Your task to perform on an android device: delete location history Image 0: 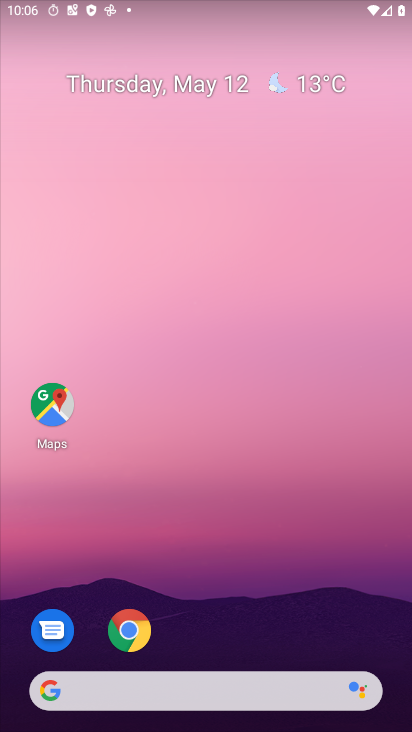
Step 0: drag from (201, 697) to (160, 88)
Your task to perform on an android device: delete location history Image 1: 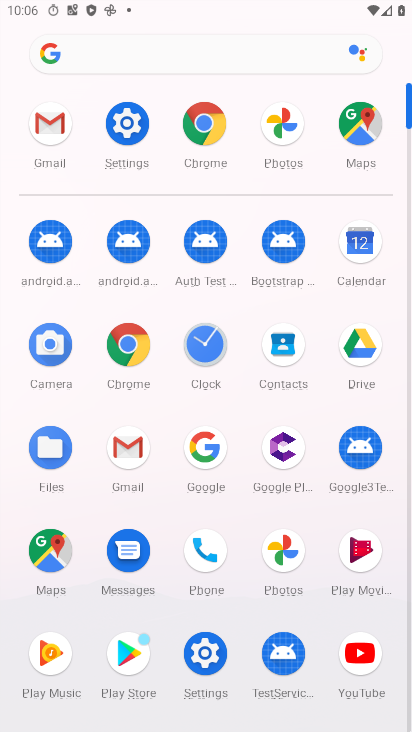
Step 1: click (345, 133)
Your task to perform on an android device: delete location history Image 2: 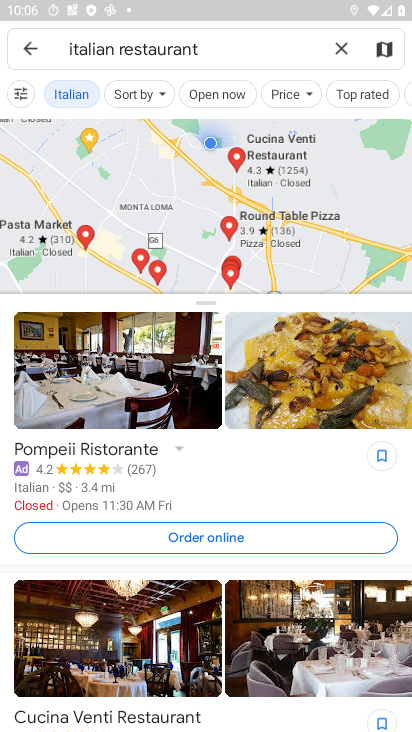
Step 2: click (26, 58)
Your task to perform on an android device: delete location history Image 3: 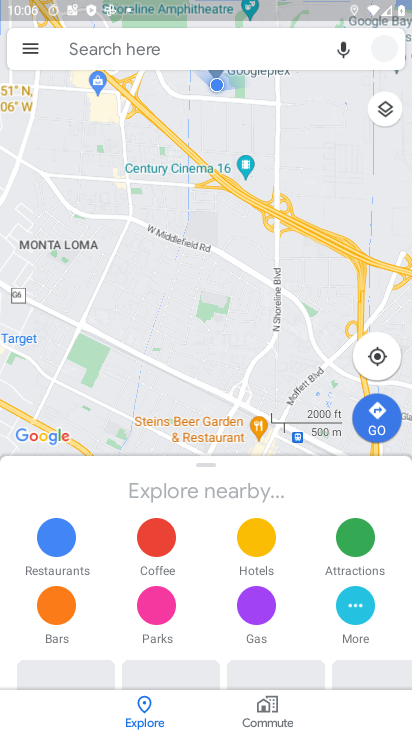
Step 3: click (30, 60)
Your task to perform on an android device: delete location history Image 4: 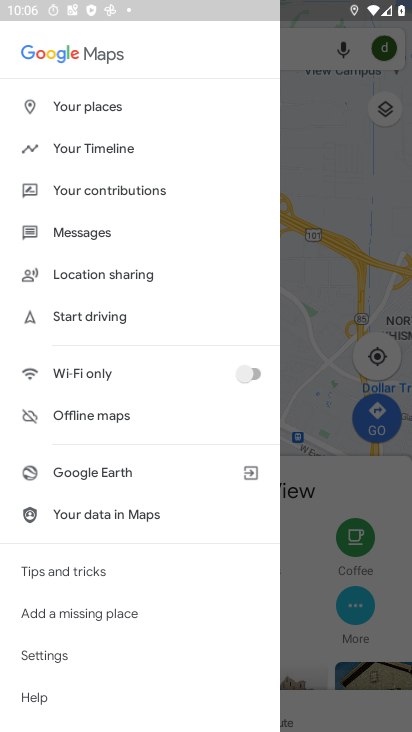
Step 4: click (63, 152)
Your task to perform on an android device: delete location history Image 5: 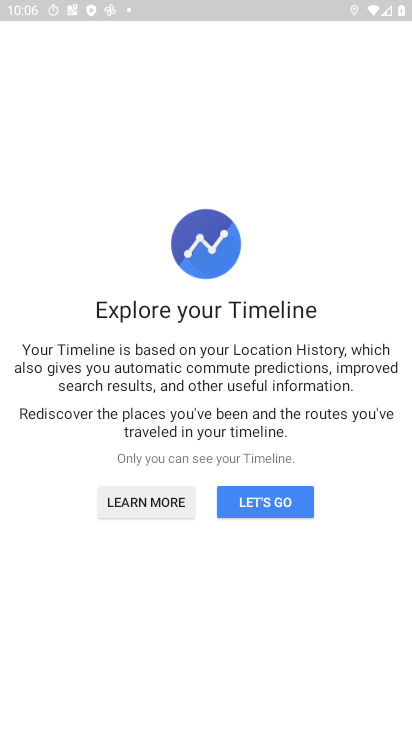
Step 5: click (251, 497)
Your task to perform on an android device: delete location history Image 6: 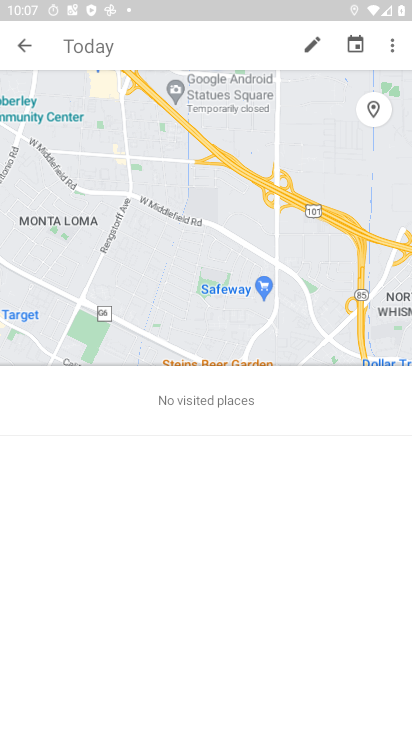
Step 6: click (387, 41)
Your task to perform on an android device: delete location history Image 7: 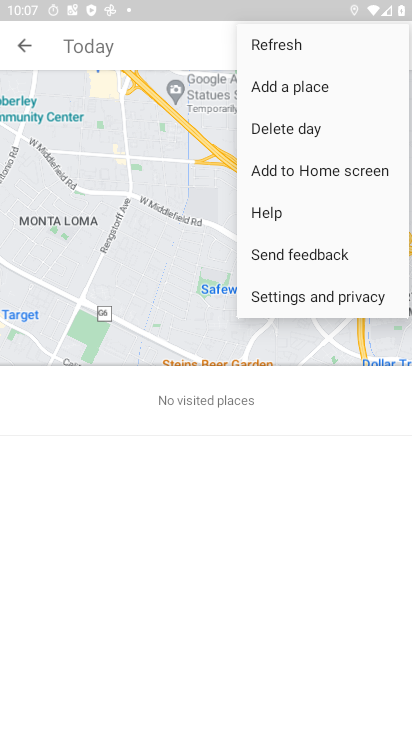
Step 7: click (308, 286)
Your task to perform on an android device: delete location history Image 8: 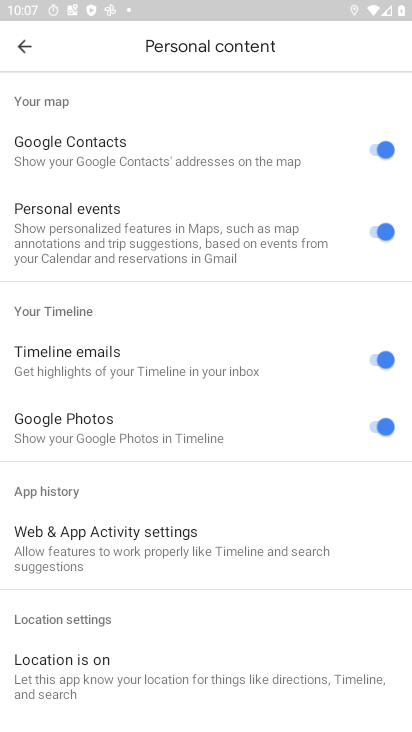
Step 8: drag from (191, 635) to (160, 187)
Your task to perform on an android device: delete location history Image 9: 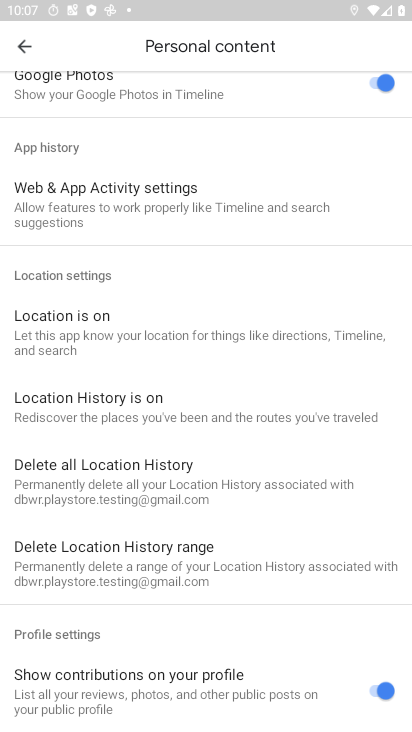
Step 9: click (208, 480)
Your task to perform on an android device: delete location history Image 10: 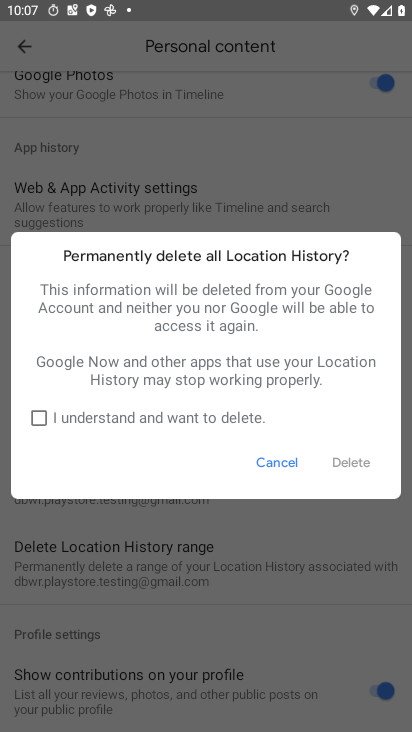
Step 10: click (190, 433)
Your task to perform on an android device: delete location history Image 11: 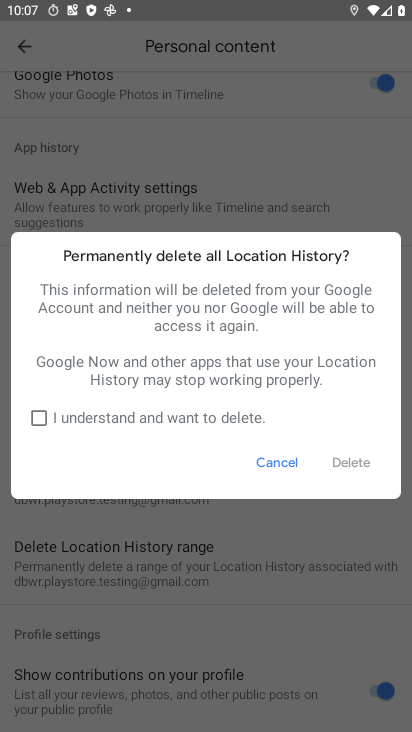
Step 11: click (151, 422)
Your task to perform on an android device: delete location history Image 12: 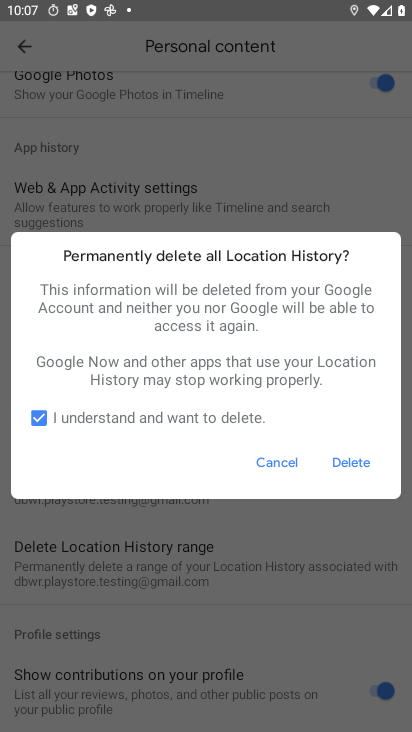
Step 12: click (351, 465)
Your task to perform on an android device: delete location history Image 13: 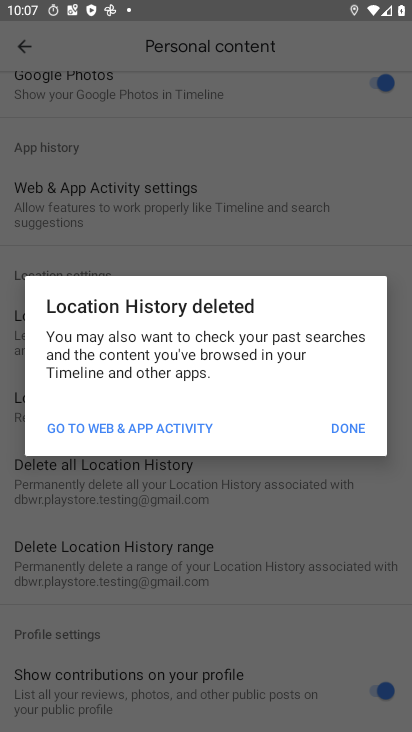
Step 13: click (339, 434)
Your task to perform on an android device: delete location history Image 14: 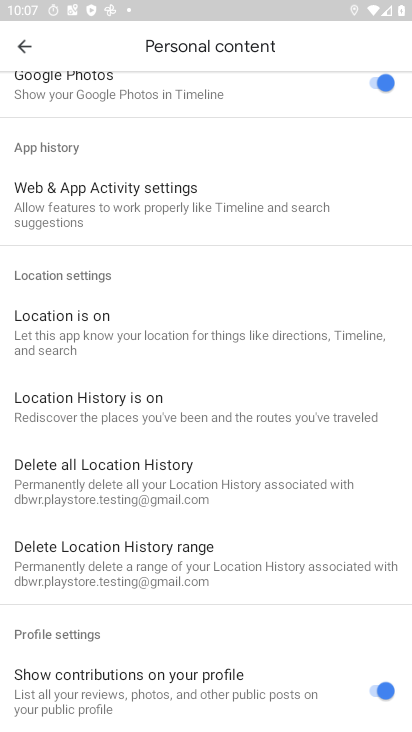
Step 14: task complete